Your task to perform on an android device: Open calendar and show me the first week of next month Image 0: 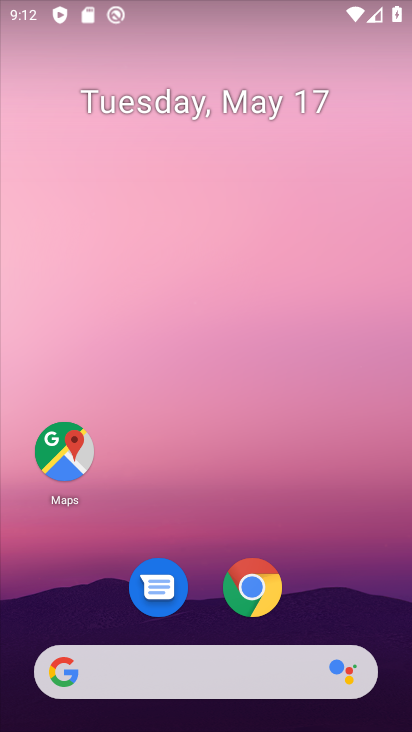
Step 0: drag from (236, 643) to (238, 2)
Your task to perform on an android device: Open calendar and show me the first week of next month Image 1: 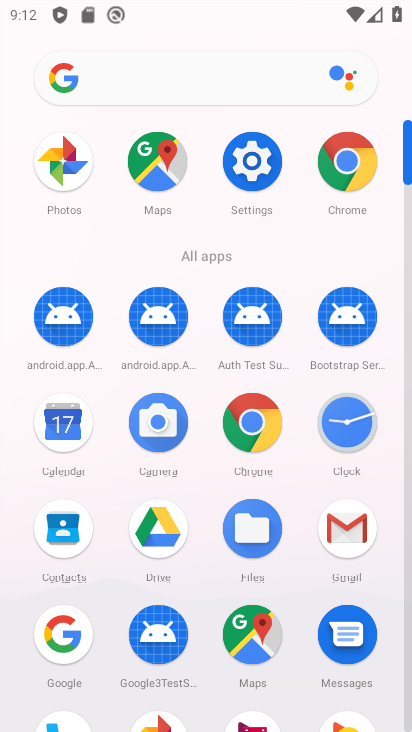
Step 1: click (298, 260)
Your task to perform on an android device: Open calendar and show me the first week of next month Image 2: 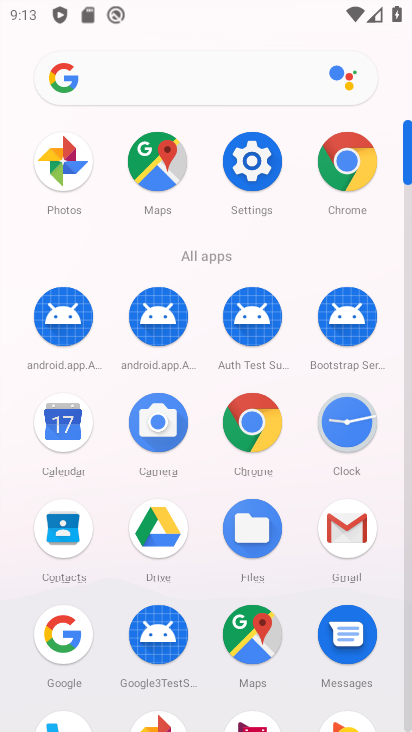
Step 2: click (277, 257)
Your task to perform on an android device: Open calendar and show me the first week of next month Image 3: 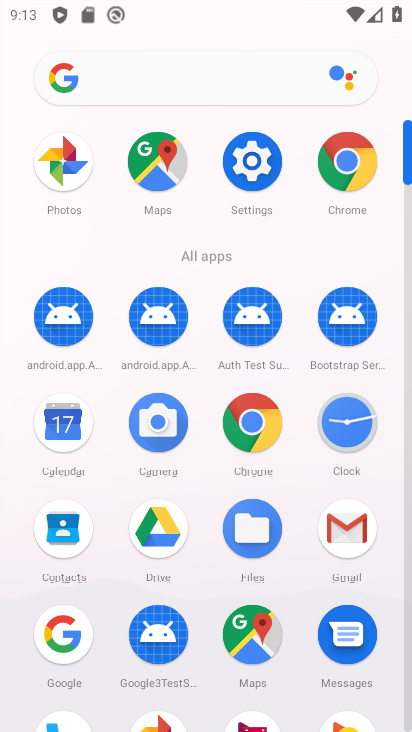
Step 3: click (65, 437)
Your task to perform on an android device: Open calendar and show me the first week of next month Image 4: 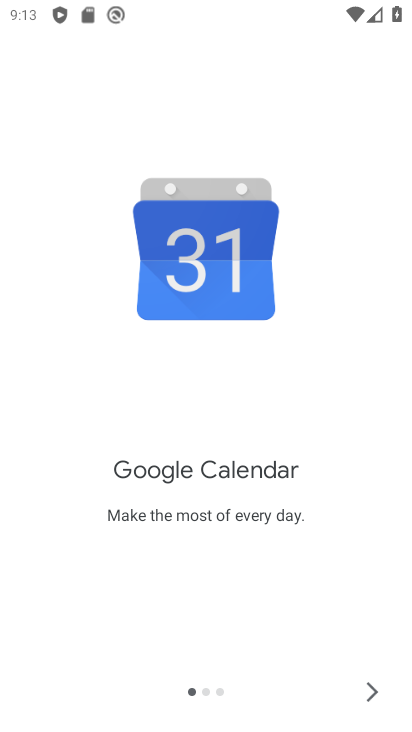
Step 4: click (374, 691)
Your task to perform on an android device: Open calendar and show me the first week of next month Image 5: 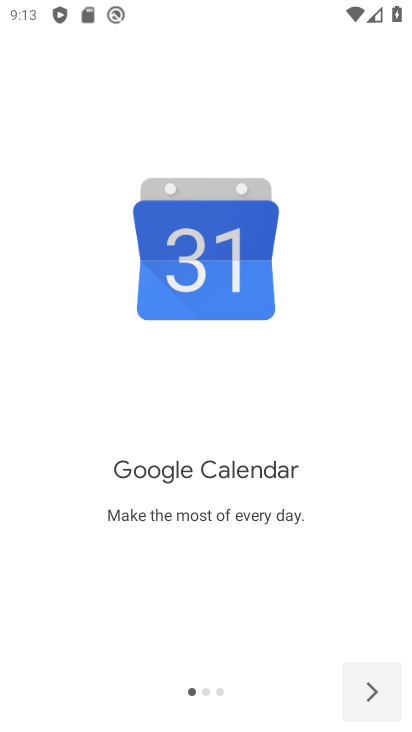
Step 5: click (374, 691)
Your task to perform on an android device: Open calendar and show me the first week of next month Image 6: 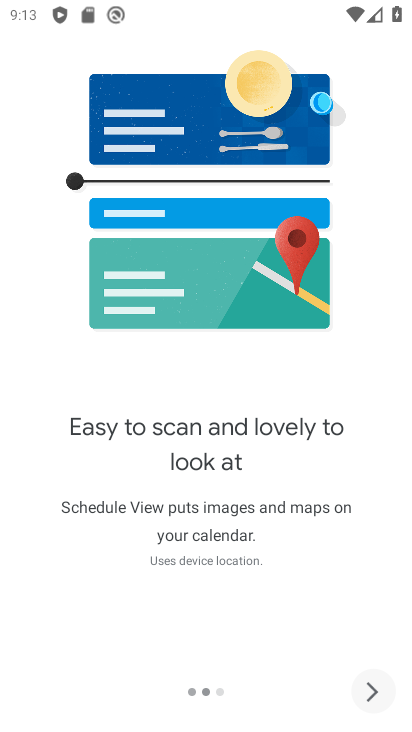
Step 6: click (374, 691)
Your task to perform on an android device: Open calendar and show me the first week of next month Image 7: 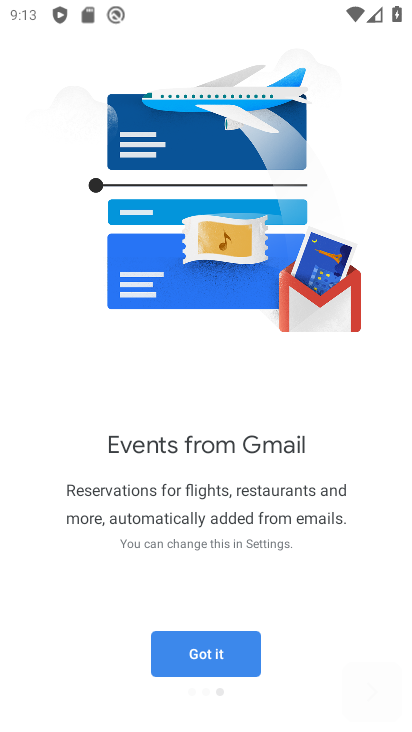
Step 7: click (374, 691)
Your task to perform on an android device: Open calendar and show me the first week of next month Image 8: 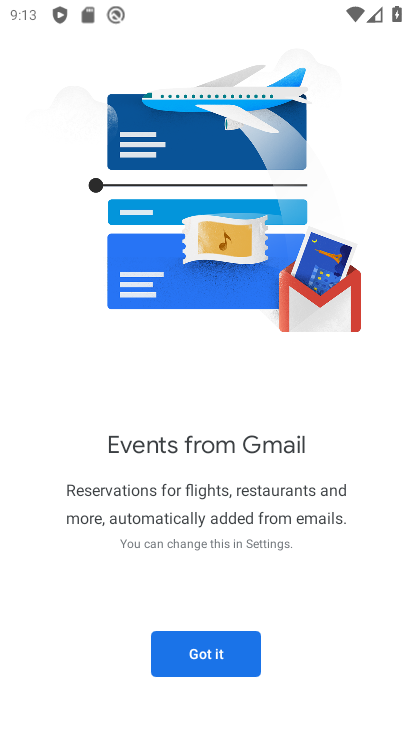
Step 8: click (227, 665)
Your task to perform on an android device: Open calendar and show me the first week of next month Image 9: 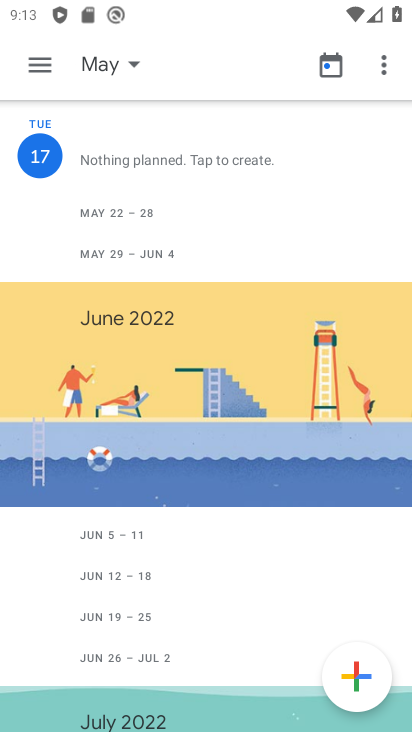
Step 9: click (94, 67)
Your task to perform on an android device: Open calendar and show me the first week of next month Image 10: 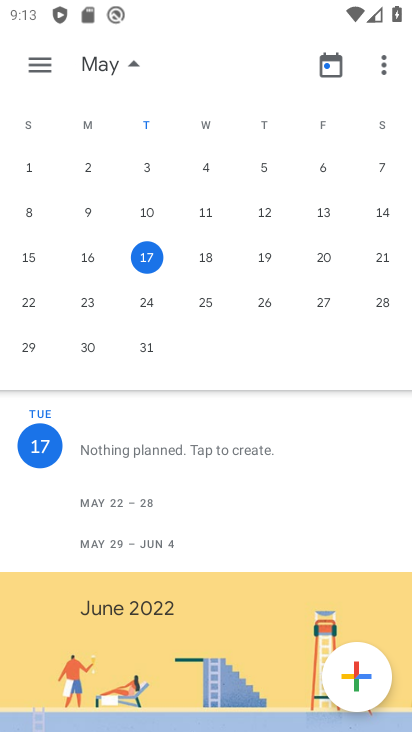
Step 10: drag from (340, 234) to (0, 243)
Your task to perform on an android device: Open calendar and show me the first week of next month Image 11: 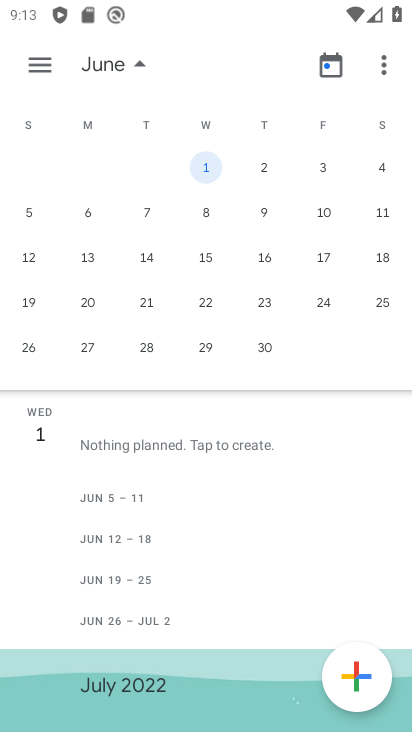
Step 11: click (119, 75)
Your task to perform on an android device: Open calendar and show me the first week of next month Image 12: 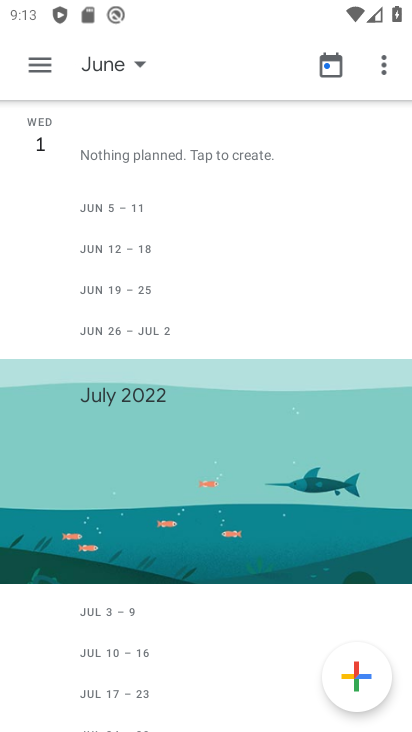
Step 12: click (38, 69)
Your task to perform on an android device: Open calendar and show me the first week of next month Image 13: 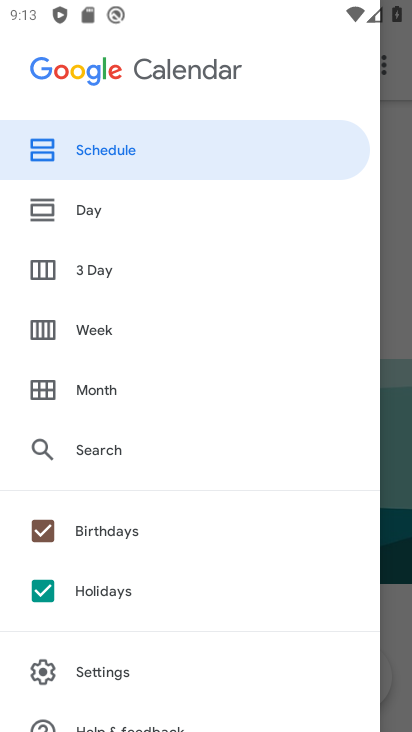
Step 13: click (106, 346)
Your task to perform on an android device: Open calendar and show me the first week of next month Image 14: 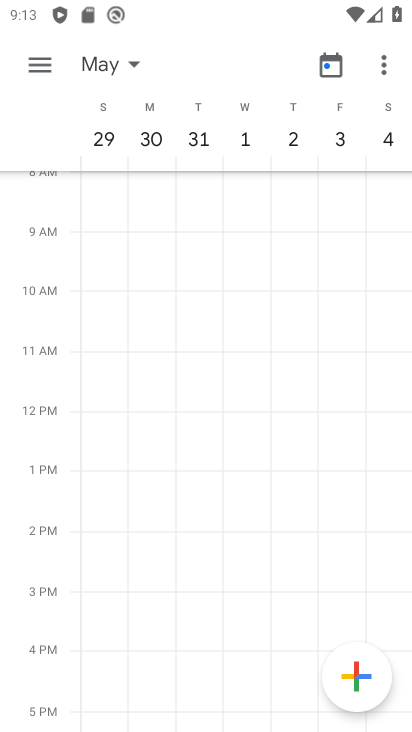
Step 14: task complete